Your task to perform on an android device: allow notifications from all sites in the chrome app Image 0: 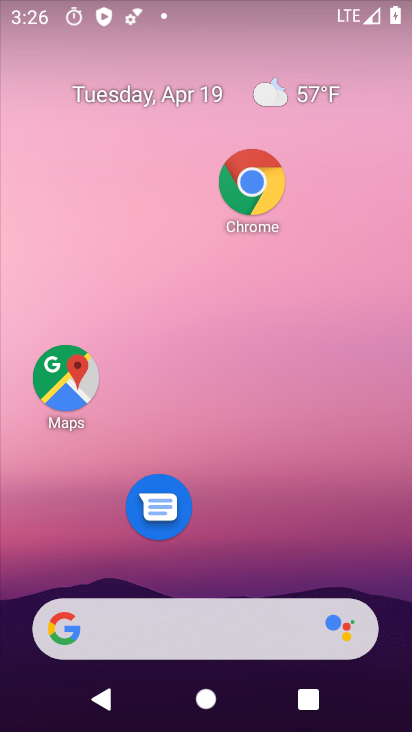
Step 0: drag from (254, 634) to (299, 296)
Your task to perform on an android device: allow notifications from all sites in the chrome app Image 1: 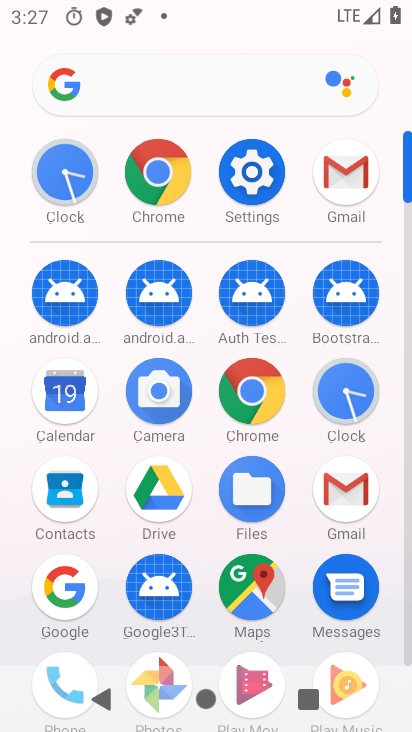
Step 1: click (269, 398)
Your task to perform on an android device: allow notifications from all sites in the chrome app Image 2: 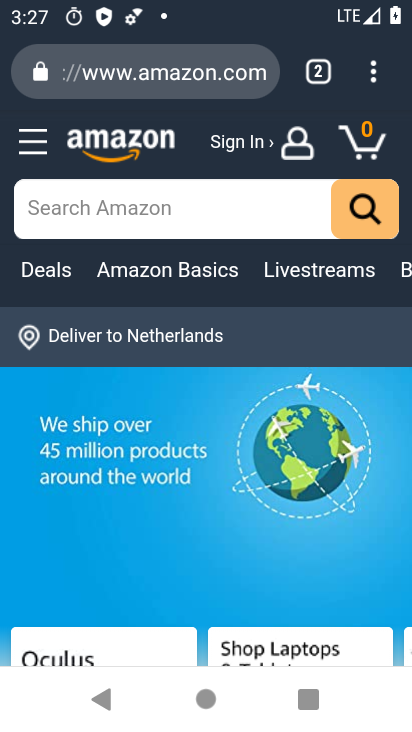
Step 2: click (381, 75)
Your task to perform on an android device: allow notifications from all sites in the chrome app Image 3: 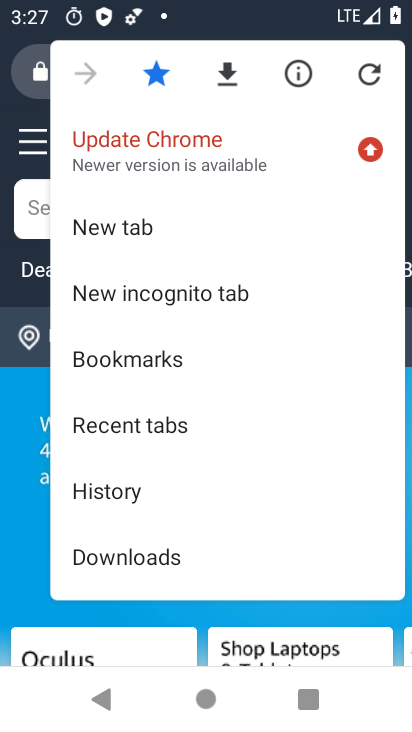
Step 3: drag from (251, 456) to (287, 245)
Your task to perform on an android device: allow notifications from all sites in the chrome app Image 4: 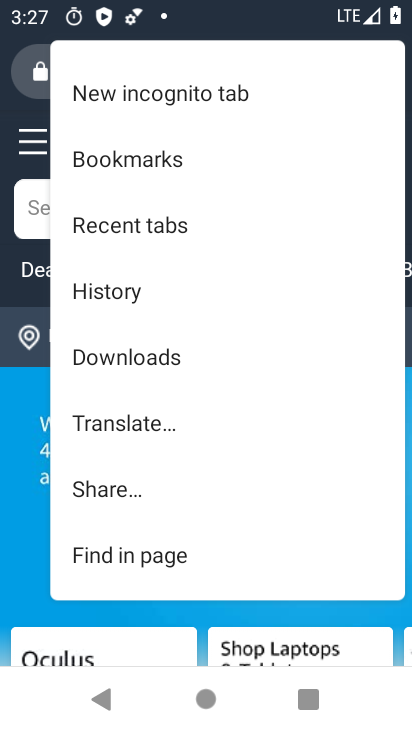
Step 4: drag from (242, 439) to (265, 246)
Your task to perform on an android device: allow notifications from all sites in the chrome app Image 5: 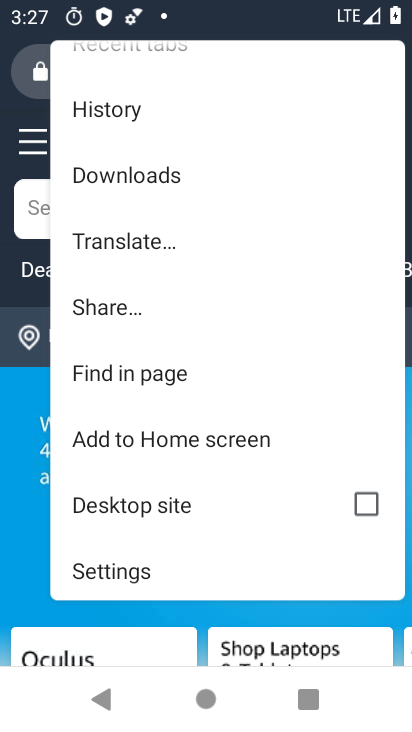
Step 5: click (177, 565)
Your task to perform on an android device: allow notifications from all sites in the chrome app Image 6: 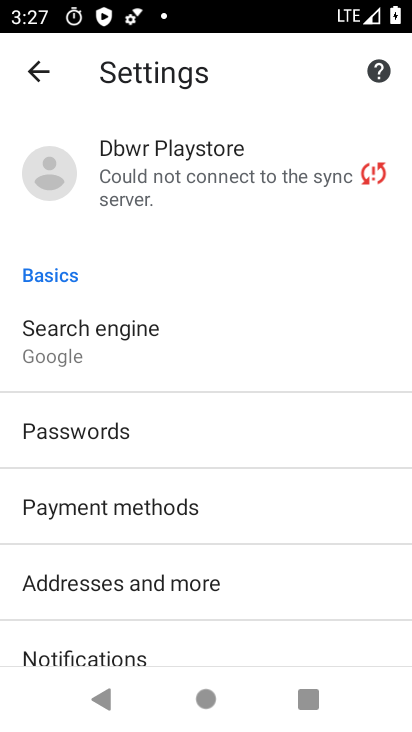
Step 6: drag from (201, 526) to (243, 326)
Your task to perform on an android device: allow notifications from all sites in the chrome app Image 7: 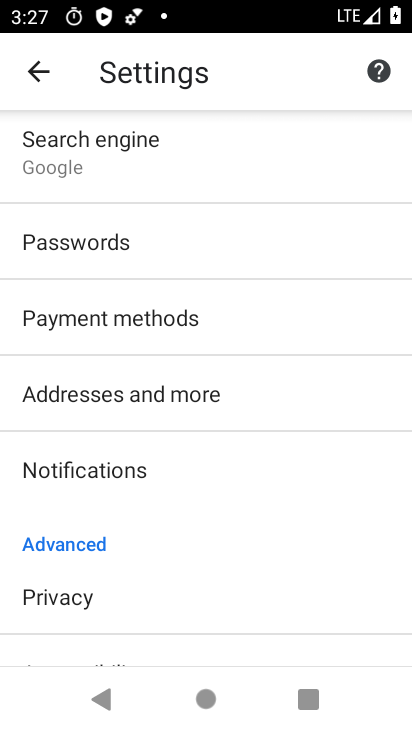
Step 7: click (181, 473)
Your task to perform on an android device: allow notifications from all sites in the chrome app Image 8: 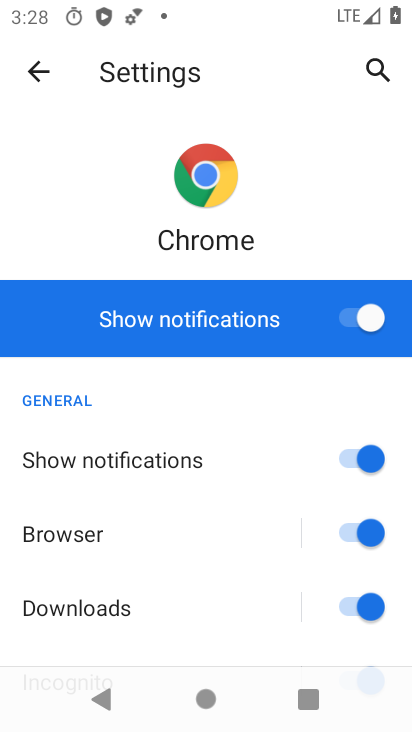
Step 8: task complete